Your task to perform on an android device: Open privacy settings Image 0: 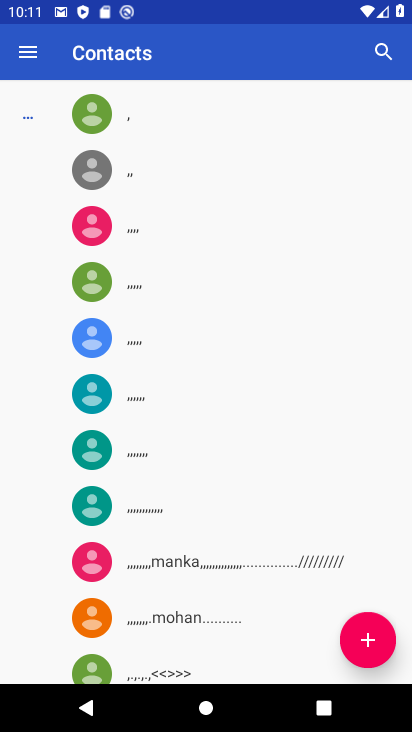
Step 0: press home button
Your task to perform on an android device: Open privacy settings Image 1: 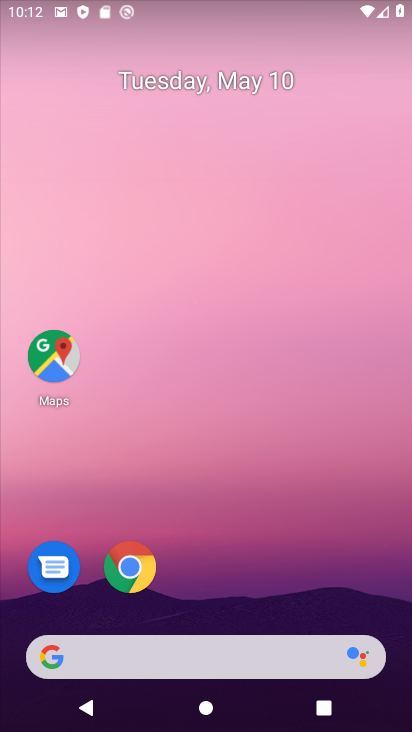
Step 1: drag from (209, 568) to (286, 95)
Your task to perform on an android device: Open privacy settings Image 2: 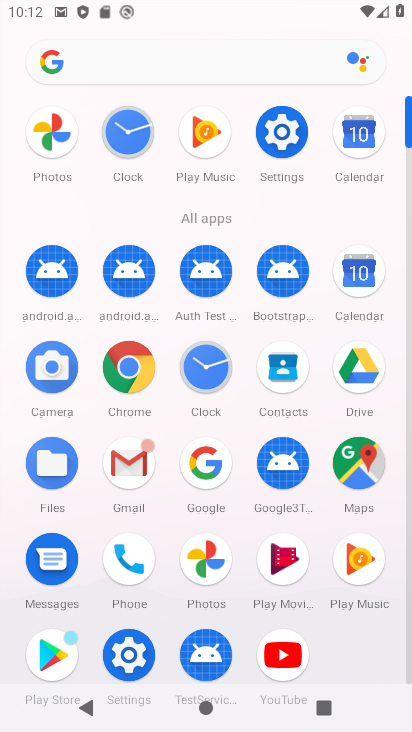
Step 2: click (132, 639)
Your task to perform on an android device: Open privacy settings Image 3: 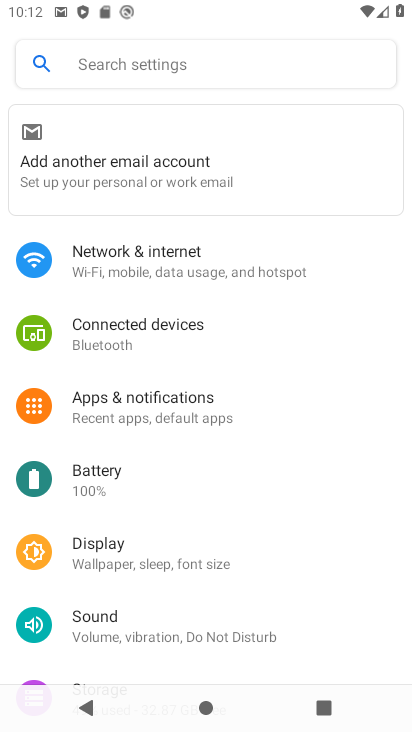
Step 3: drag from (175, 397) to (185, 261)
Your task to perform on an android device: Open privacy settings Image 4: 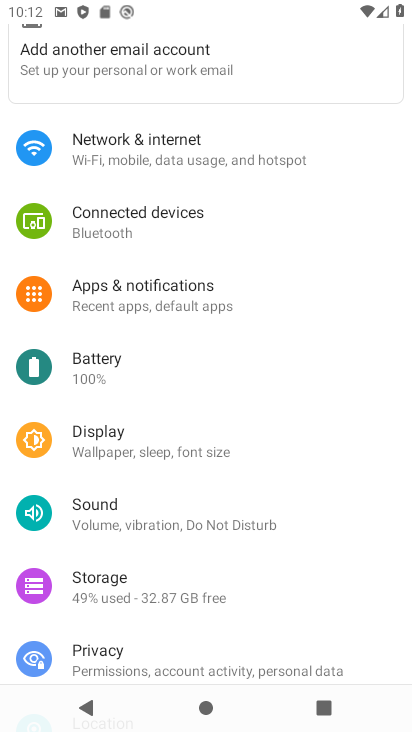
Step 4: click (127, 654)
Your task to perform on an android device: Open privacy settings Image 5: 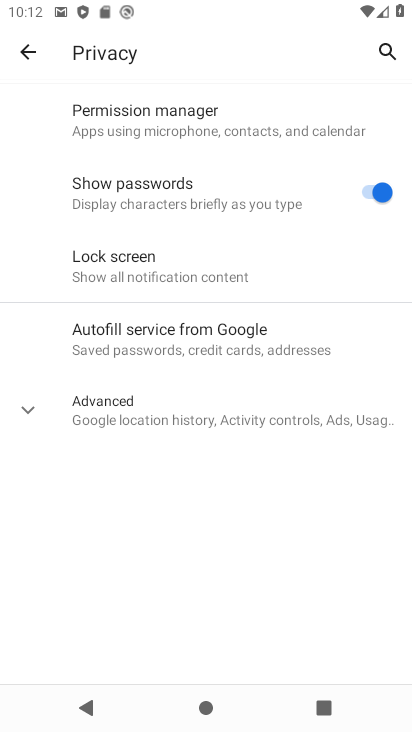
Step 5: task complete